Your task to perform on an android device: make emails show in primary in the gmail app Image 0: 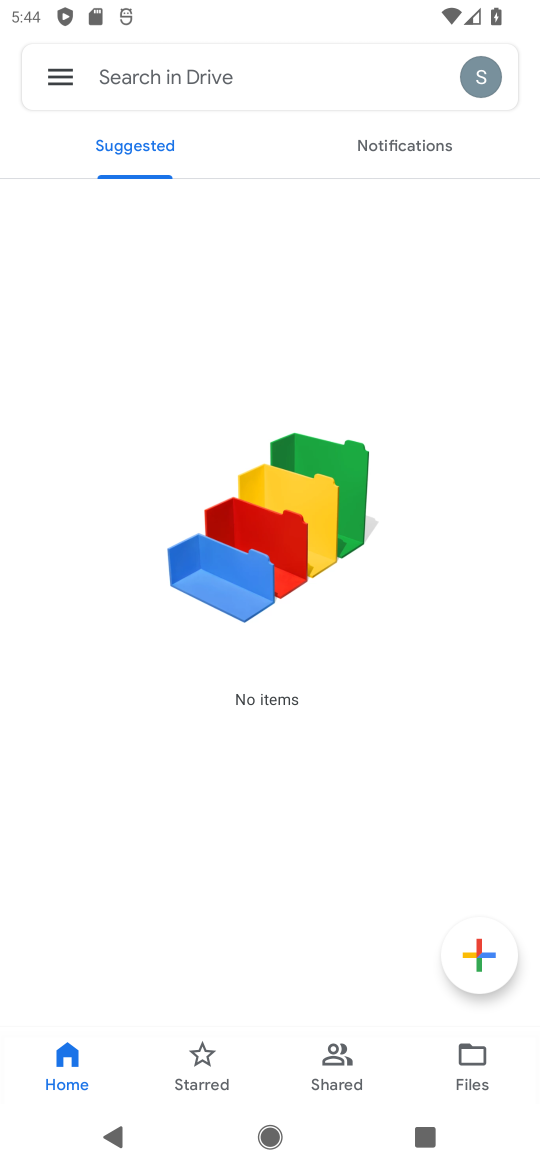
Step 0: press home button
Your task to perform on an android device: make emails show in primary in the gmail app Image 1: 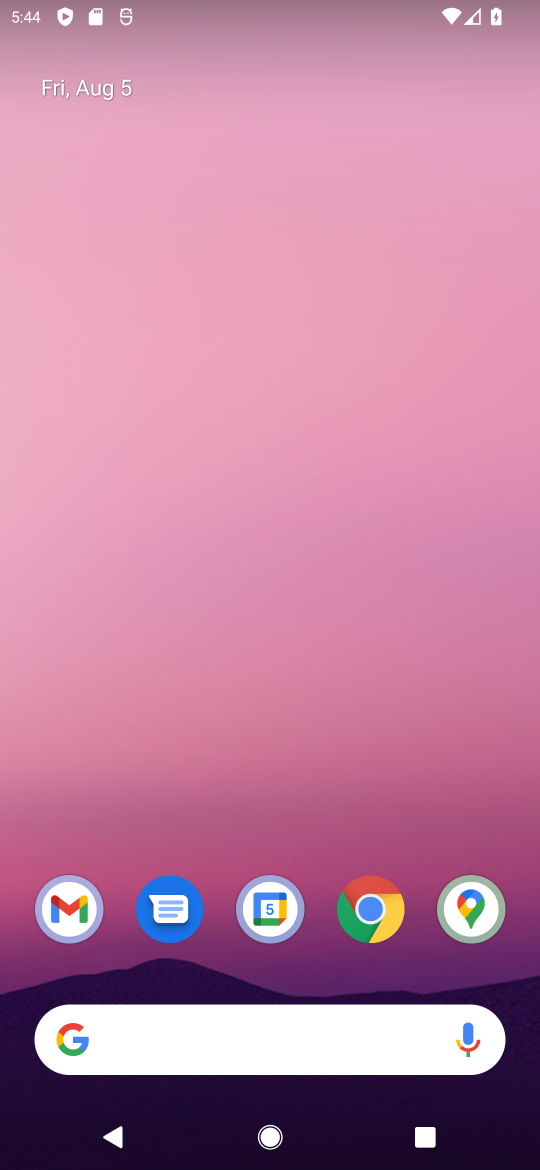
Step 1: drag from (227, 835) to (206, 64)
Your task to perform on an android device: make emails show in primary in the gmail app Image 2: 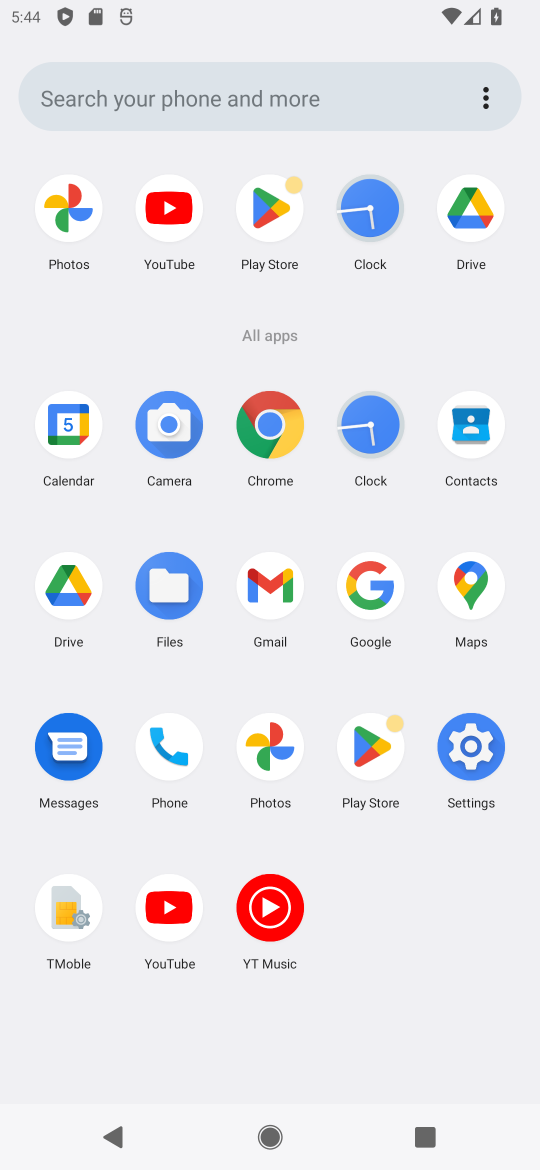
Step 2: click (273, 591)
Your task to perform on an android device: make emails show in primary in the gmail app Image 3: 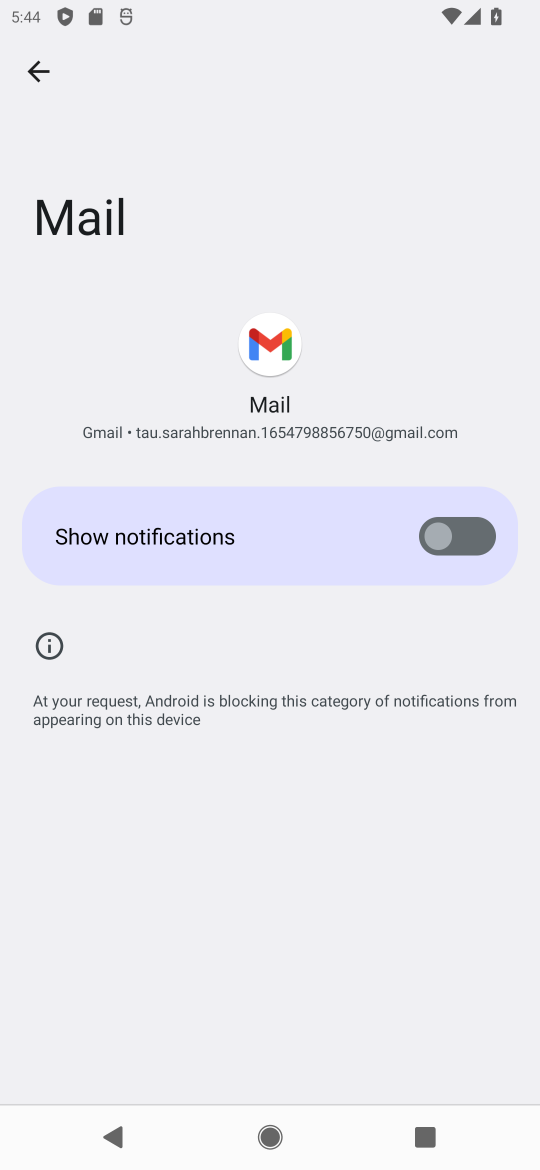
Step 3: press back button
Your task to perform on an android device: make emails show in primary in the gmail app Image 4: 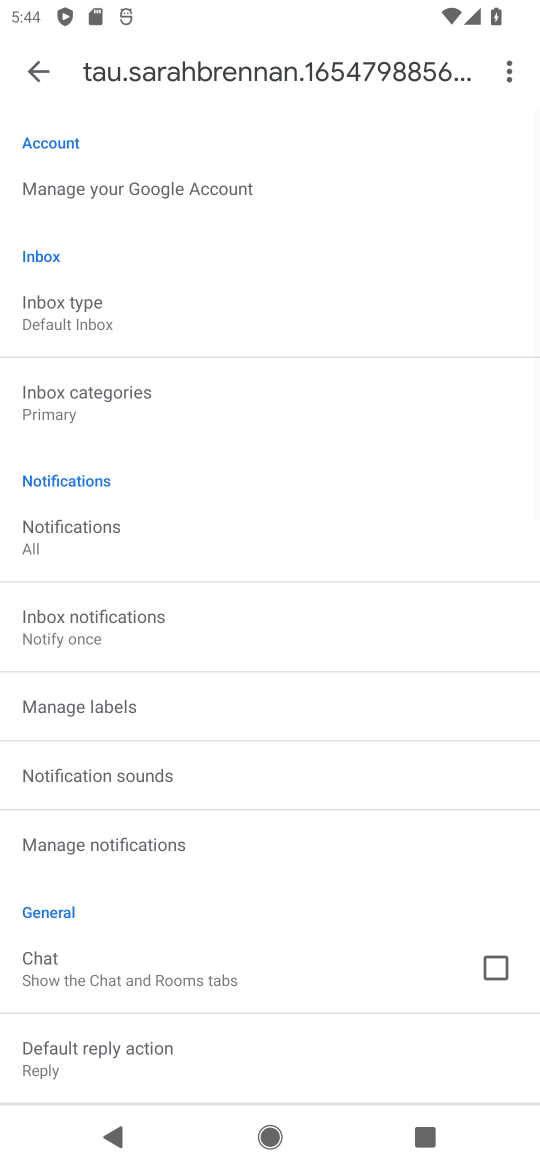
Step 4: press back button
Your task to perform on an android device: make emails show in primary in the gmail app Image 5: 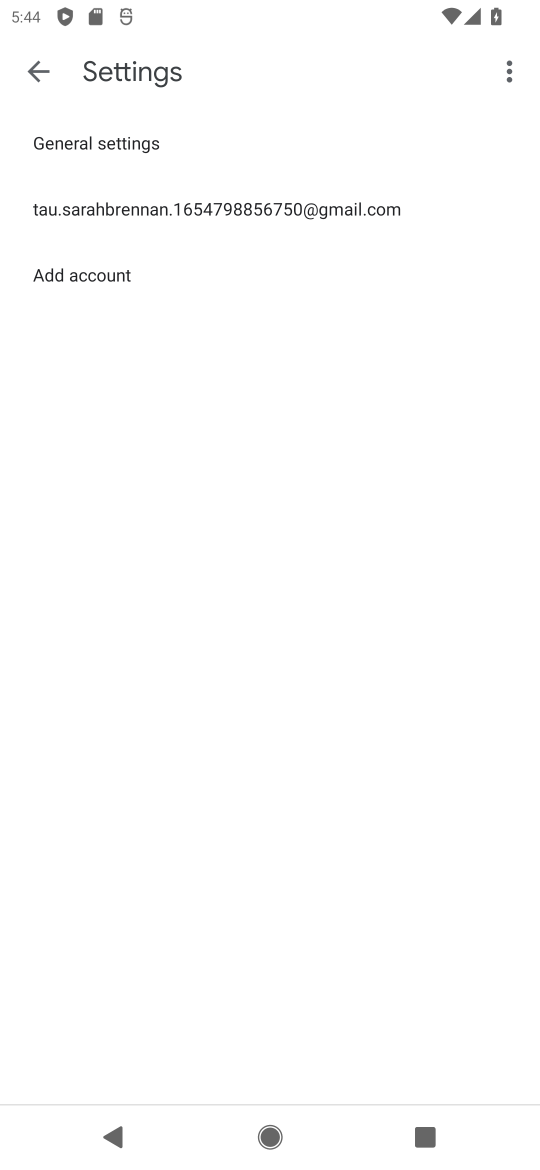
Step 5: press back button
Your task to perform on an android device: make emails show in primary in the gmail app Image 6: 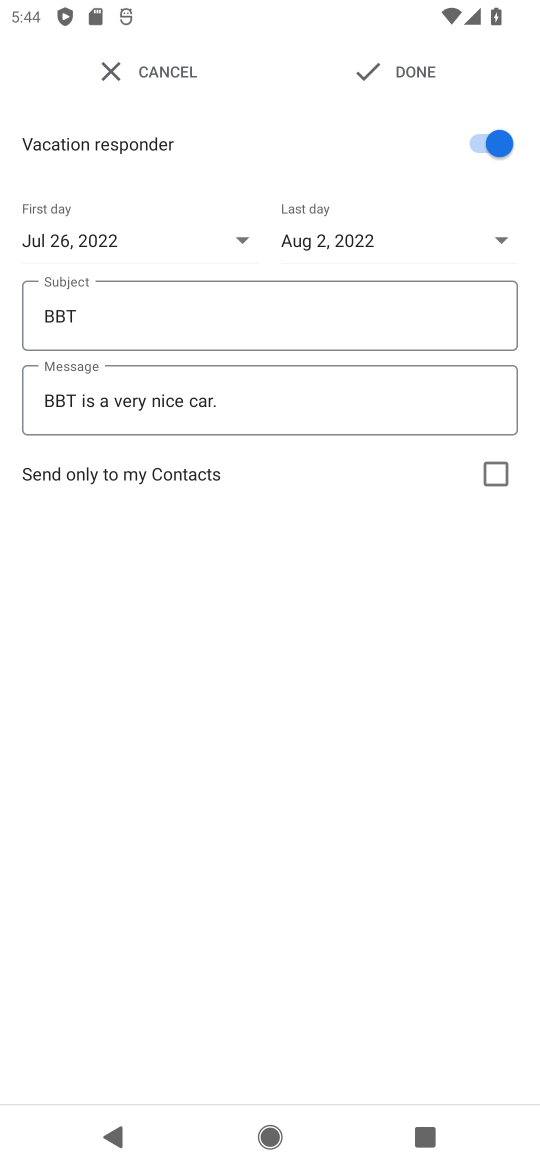
Step 6: press back button
Your task to perform on an android device: make emails show in primary in the gmail app Image 7: 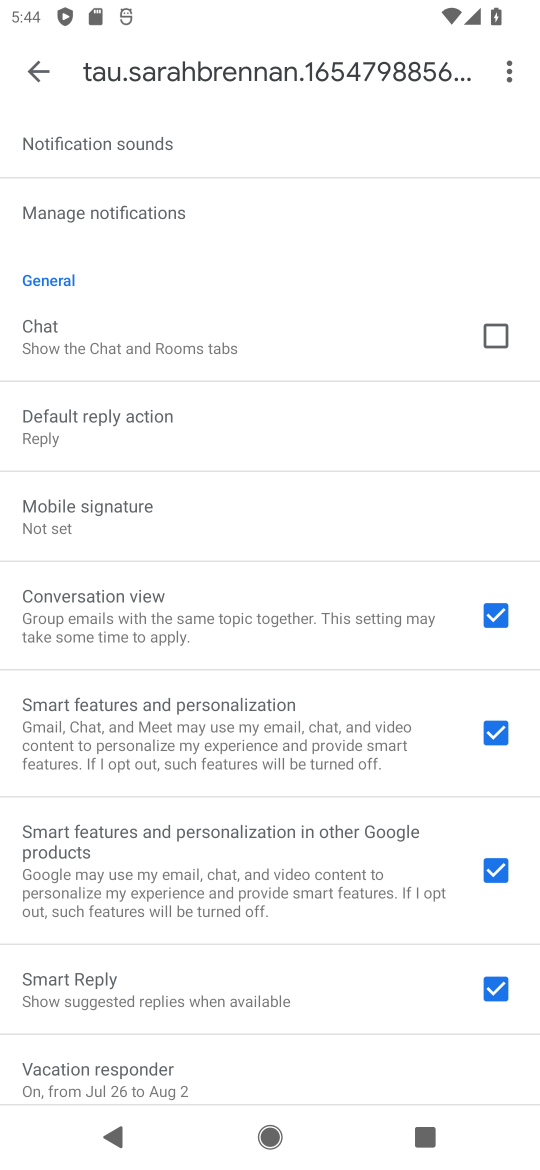
Step 7: drag from (150, 268) to (205, 941)
Your task to perform on an android device: make emails show in primary in the gmail app Image 8: 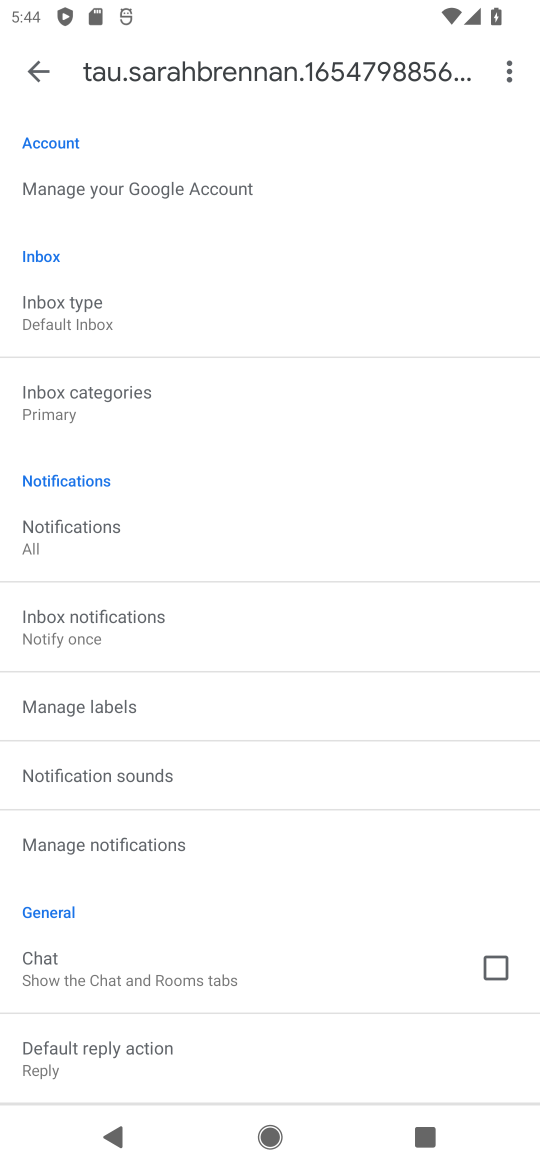
Step 8: click (115, 298)
Your task to perform on an android device: make emails show in primary in the gmail app Image 9: 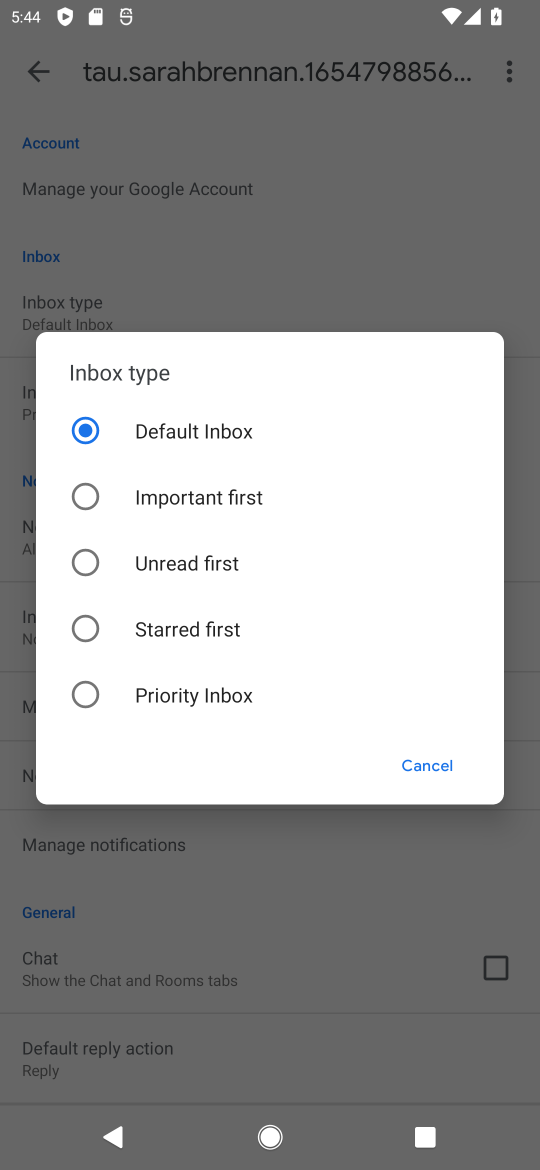
Step 9: click (368, 849)
Your task to perform on an android device: make emails show in primary in the gmail app Image 10: 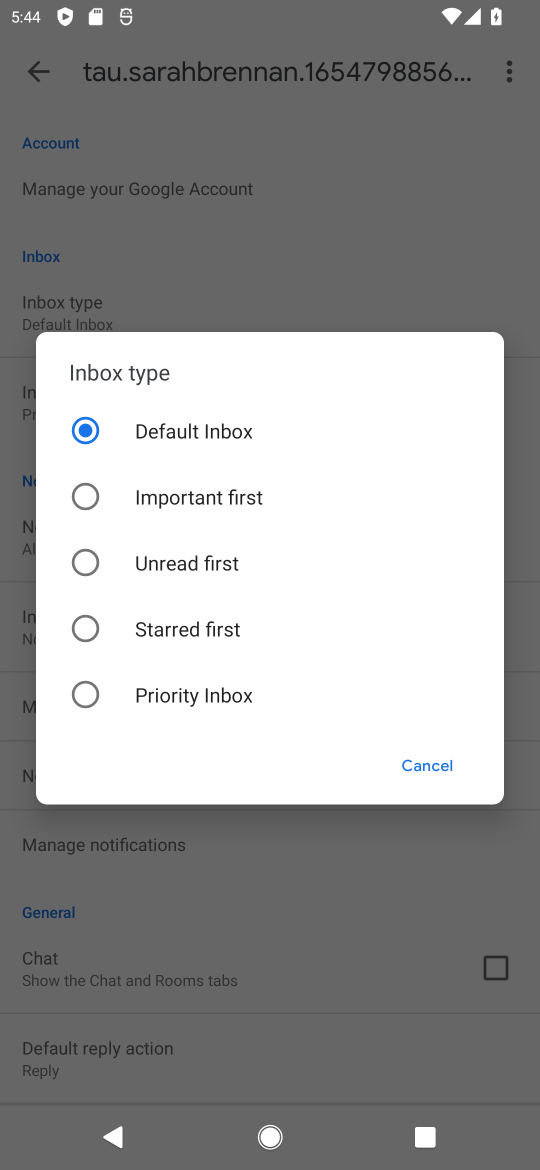
Step 10: click (15, 740)
Your task to perform on an android device: make emails show in primary in the gmail app Image 11: 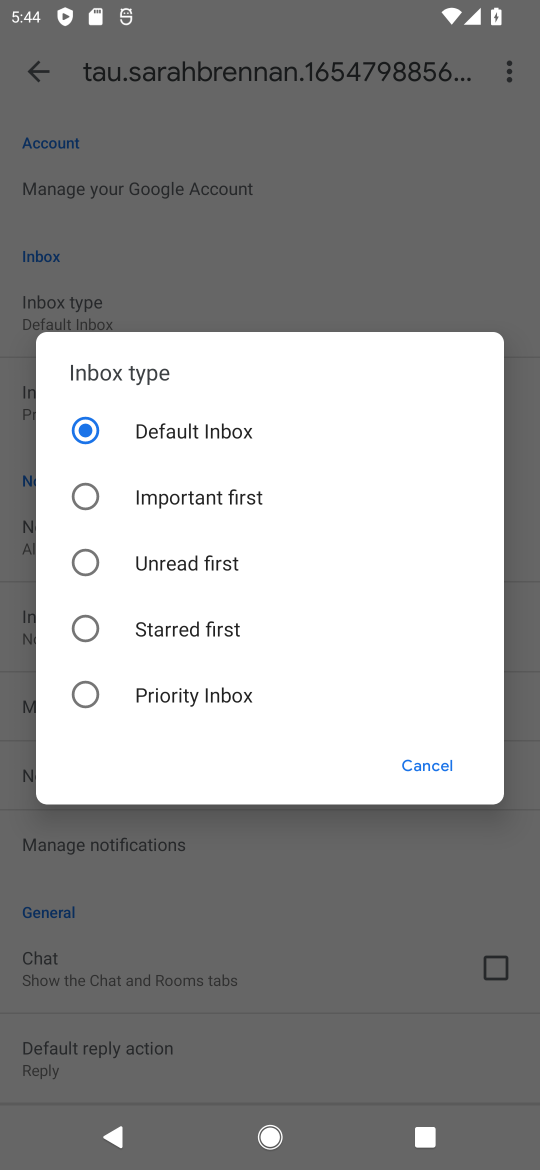
Step 11: click (160, 434)
Your task to perform on an android device: make emails show in primary in the gmail app Image 12: 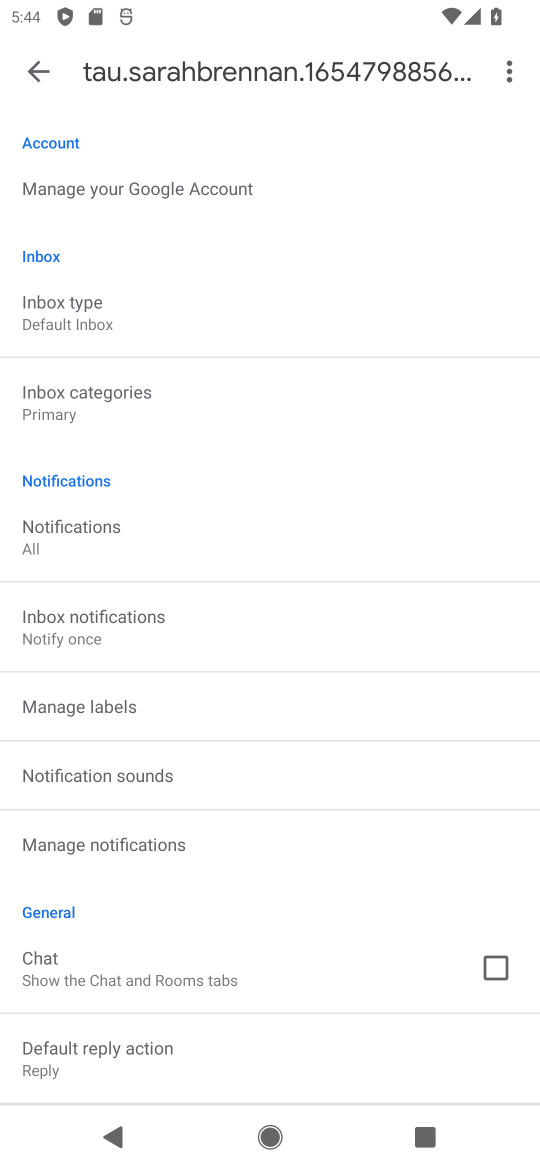
Step 12: click (65, 408)
Your task to perform on an android device: make emails show in primary in the gmail app Image 13: 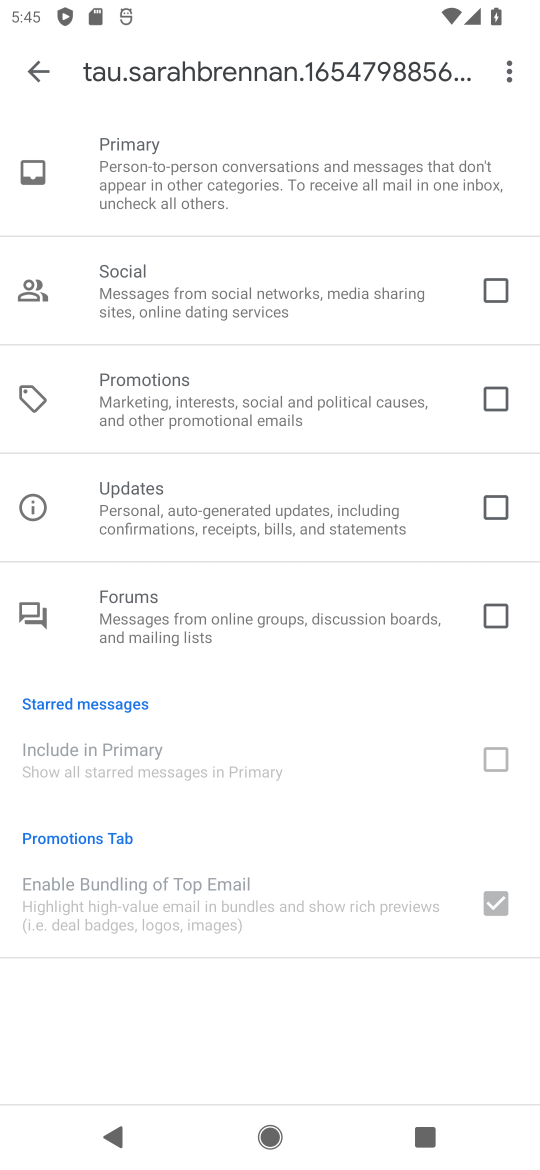
Step 13: task complete